Your task to perform on an android device: turn vacation reply on in the gmail app Image 0: 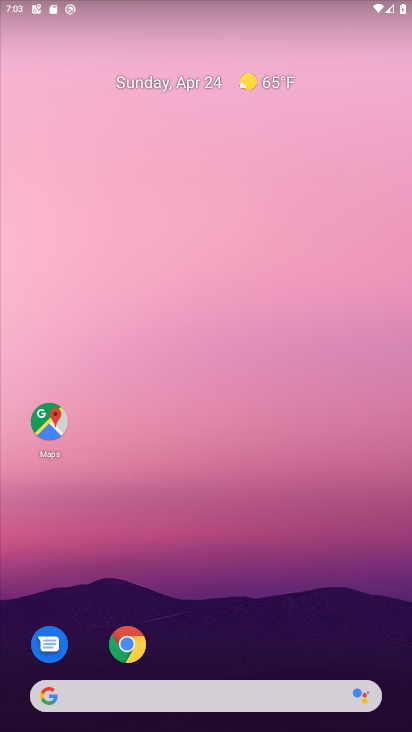
Step 0: drag from (220, 660) to (236, 0)
Your task to perform on an android device: turn vacation reply on in the gmail app Image 1: 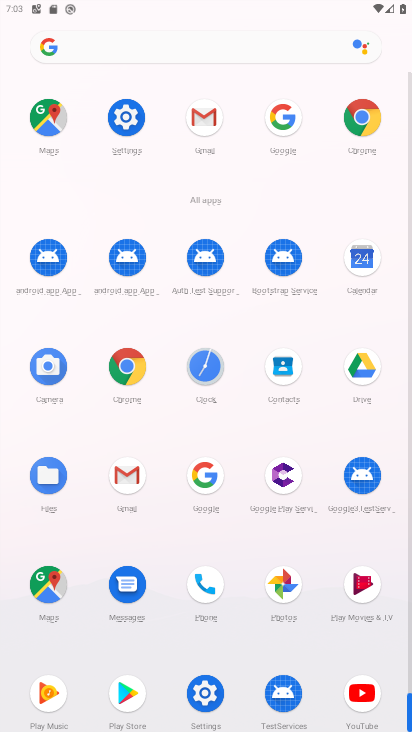
Step 1: click (126, 470)
Your task to perform on an android device: turn vacation reply on in the gmail app Image 2: 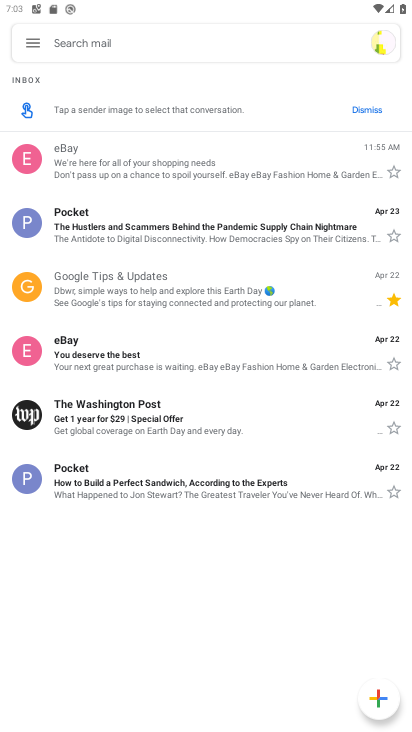
Step 2: click (28, 39)
Your task to perform on an android device: turn vacation reply on in the gmail app Image 3: 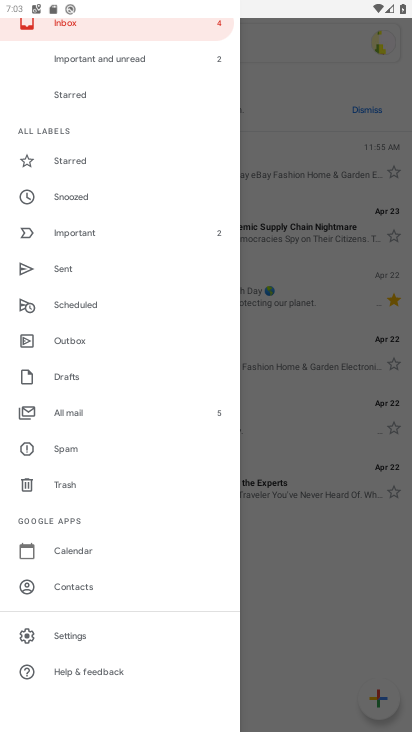
Step 3: click (93, 630)
Your task to perform on an android device: turn vacation reply on in the gmail app Image 4: 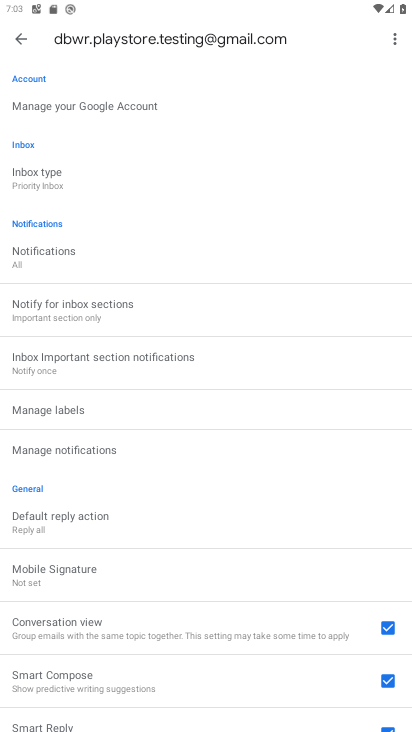
Step 4: drag from (141, 655) to (178, 224)
Your task to perform on an android device: turn vacation reply on in the gmail app Image 5: 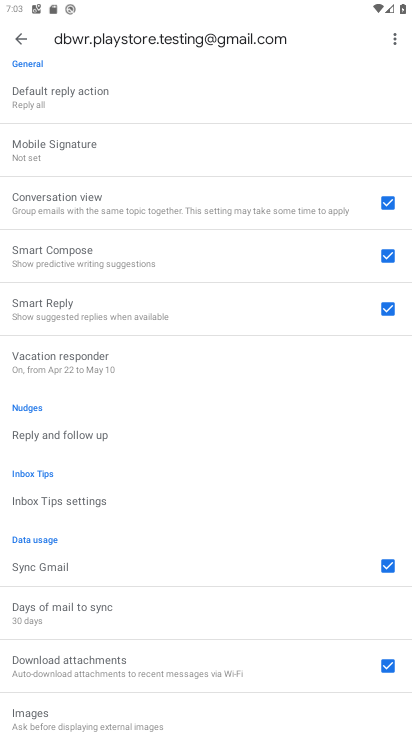
Step 5: click (125, 352)
Your task to perform on an android device: turn vacation reply on in the gmail app Image 6: 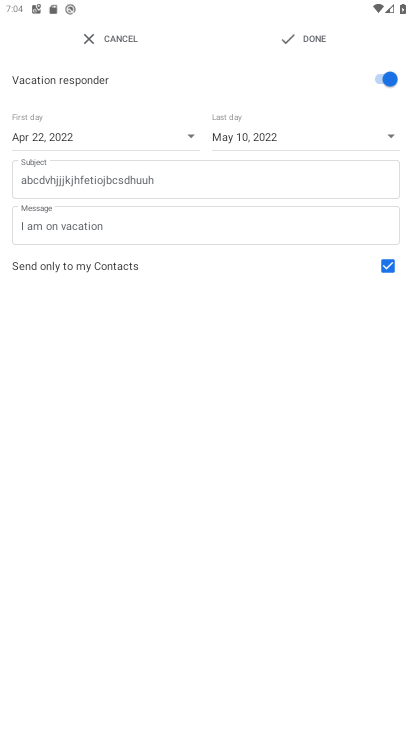
Step 6: task complete